Your task to perform on an android device: turn on improve location accuracy Image 0: 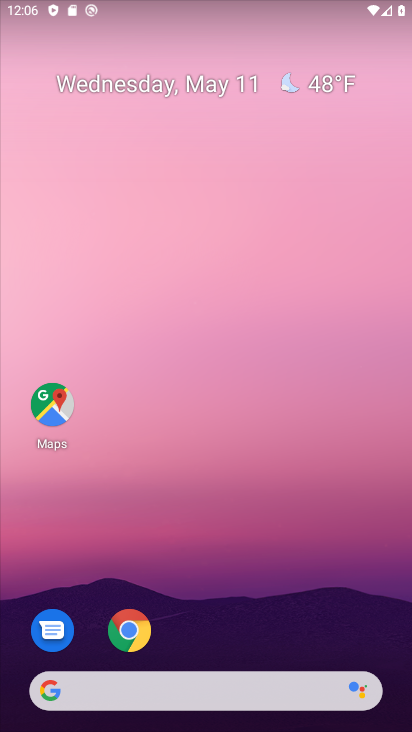
Step 0: drag from (197, 666) to (223, 68)
Your task to perform on an android device: turn on improve location accuracy Image 1: 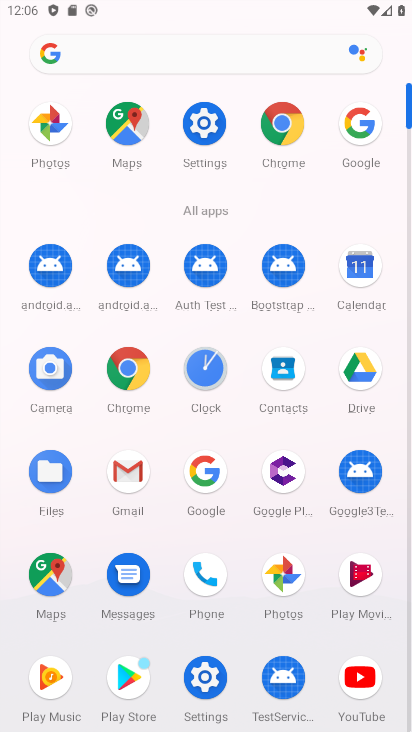
Step 1: click (208, 137)
Your task to perform on an android device: turn on improve location accuracy Image 2: 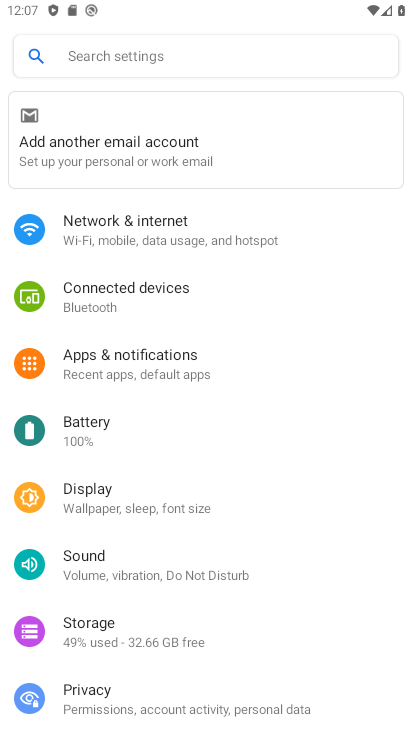
Step 2: drag from (185, 620) to (184, 206)
Your task to perform on an android device: turn on improve location accuracy Image 3: 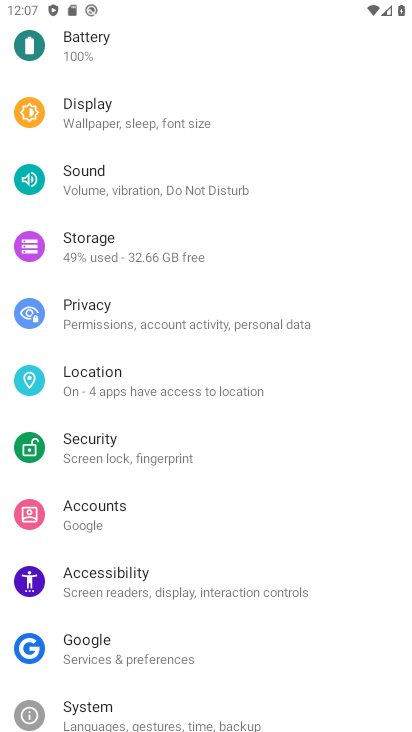
Step 3: click (106, 382)
Your task to perform on an android device: turn on improve location accuracy Image 4: 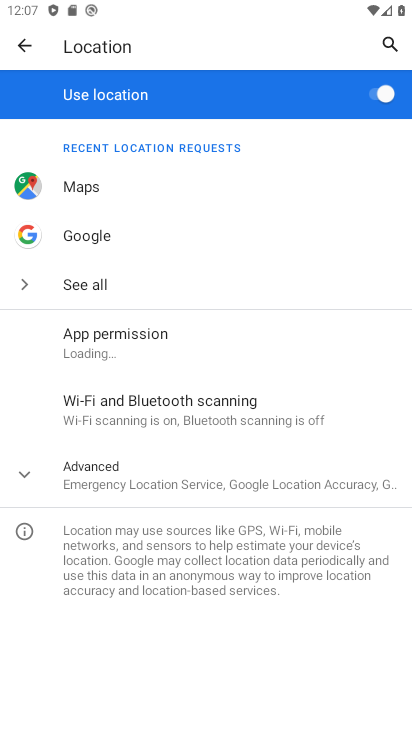
Step 4: click (154, 473)
Your task to perform on an android device: turn on improve location accuracy Image 5: 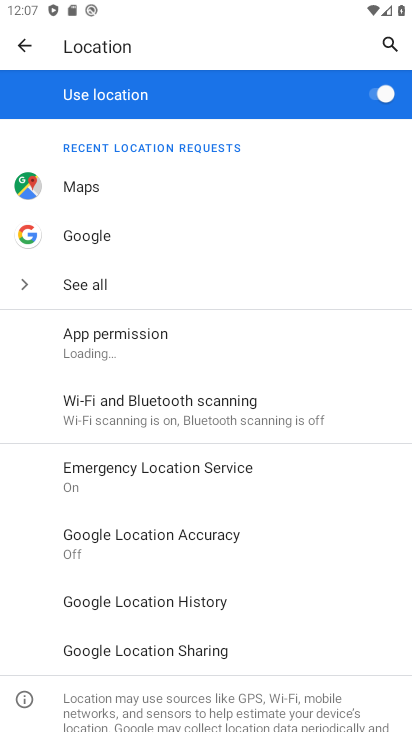
Step 5: click (172, 530)
Your task to perform on an android device: turn on improve location accuracy Image 6: 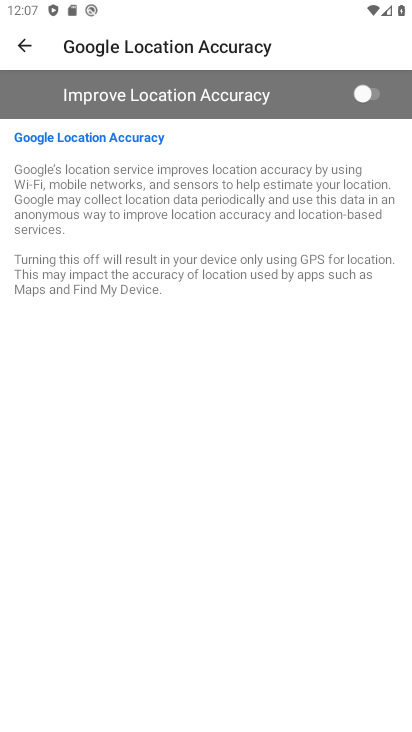
Step 6: click (373, 85)
Your task to perform on an android device: turn on improve location accuracy Image 7: 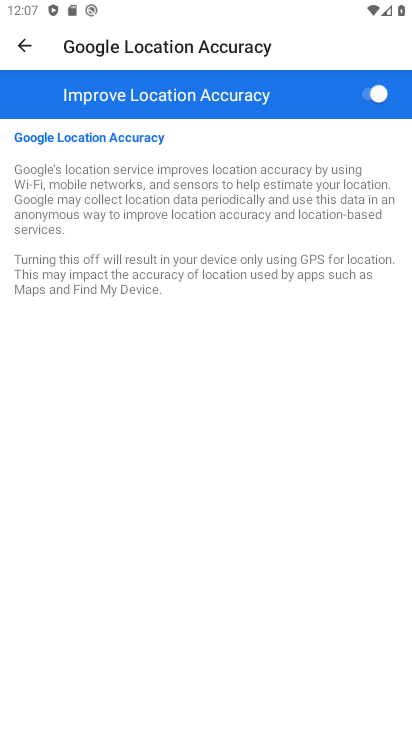
Step 7: task complete